Your task to perform on an android device: toggle show notifications on the lock screen Image 0: 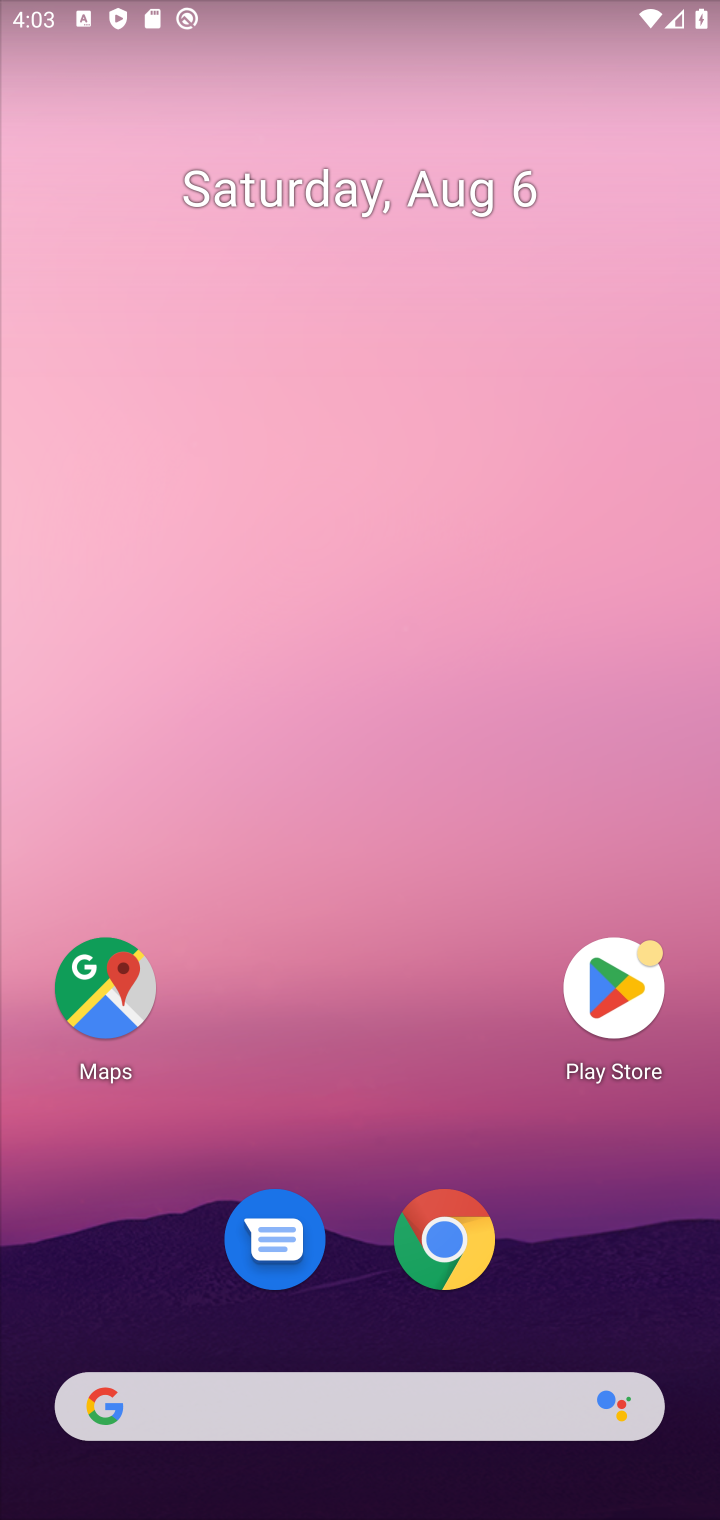
Step 0: press home button
Your task to perform on an android device: toggle show notifications on the lock screen Image 1: 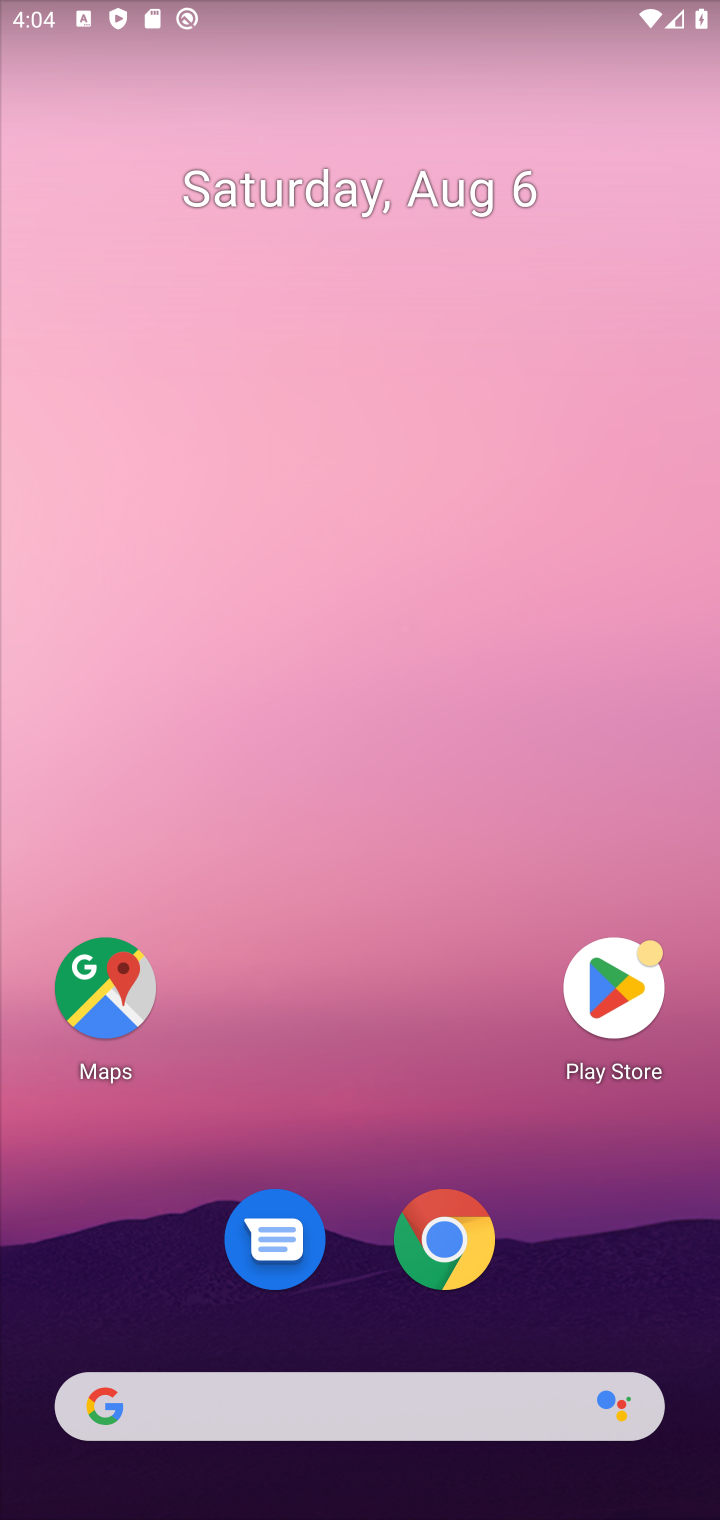
Step 1: drag from (503, 1410) to (563, 1)
Your task to perform on an android device: toggle show notifications on the lock screen Image 2: 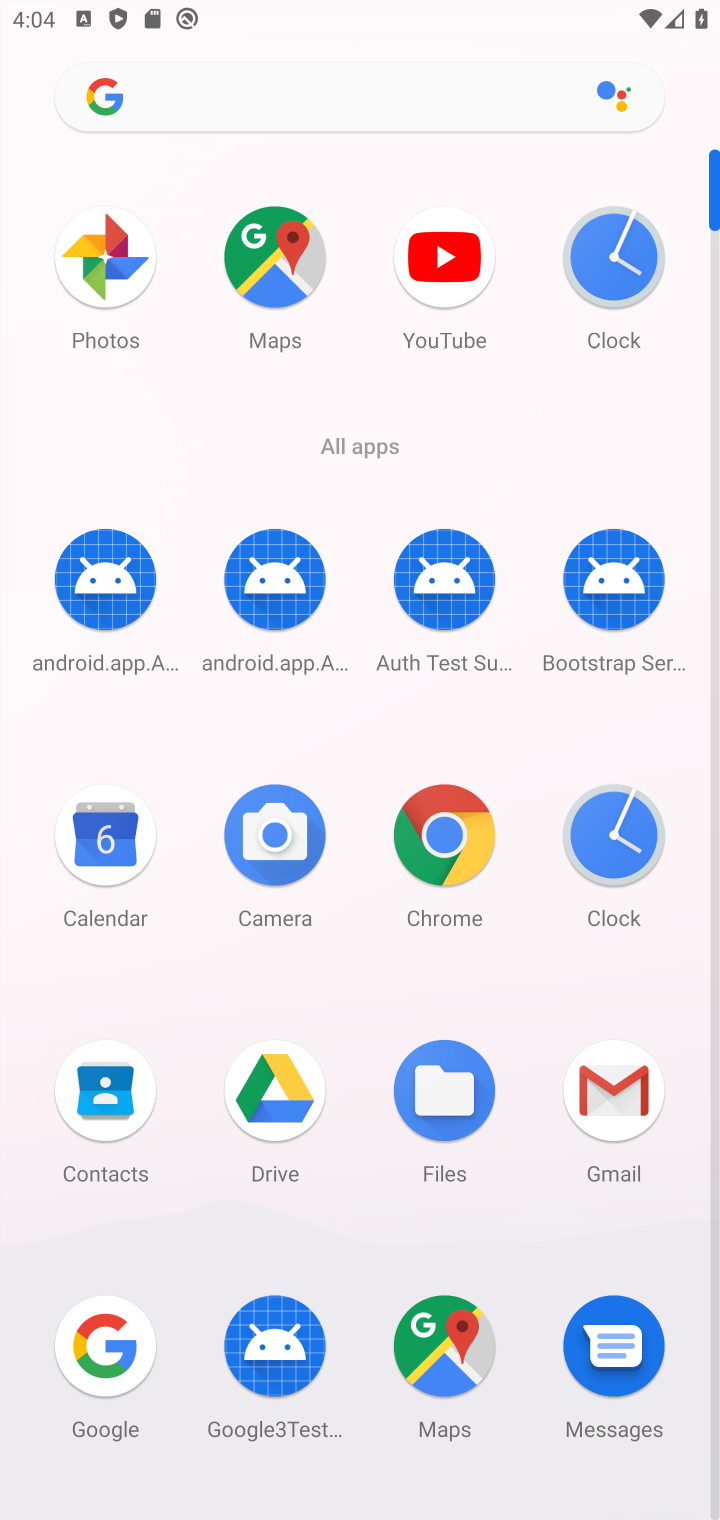
Step 2: click (582, 1193)
Your task to perform on an android device: toggle show notifications on the lock screen Image 3: 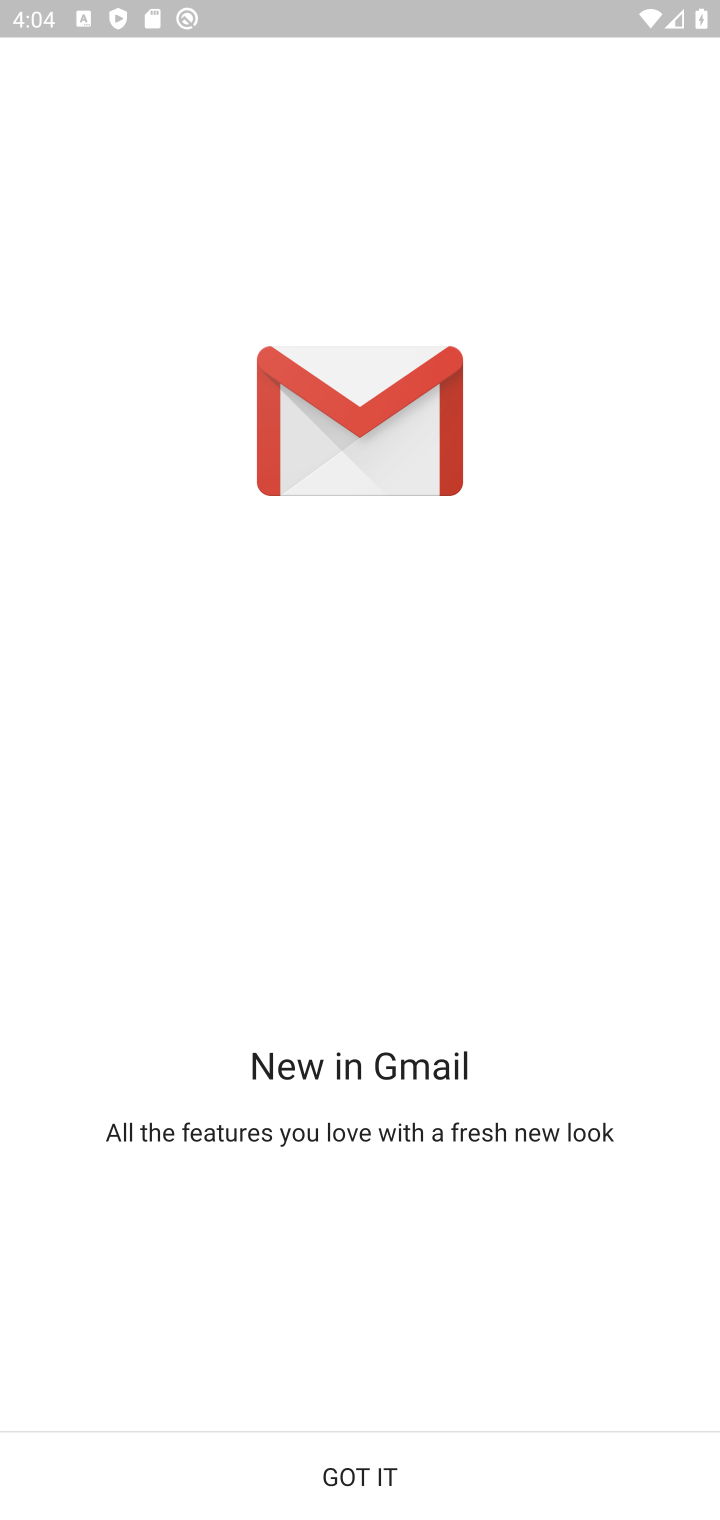
Step 3: press home button
Your task to perform on an android device: toggle show notifications on the lock screen Image 4: 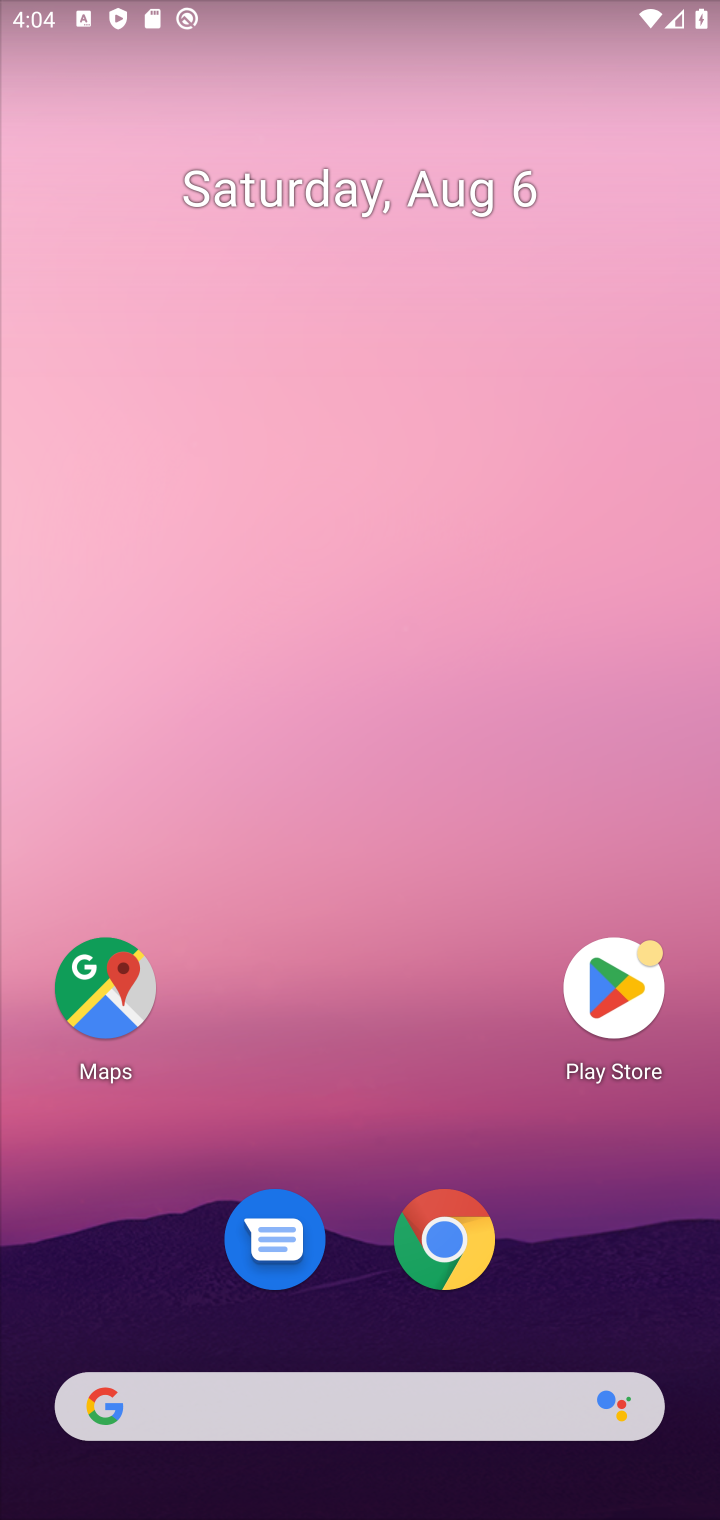
Step 4: drag from (355, 1405) to (376, 320)
Your task to perform on an android device: toggle show notifications on the lock screen Image 5: 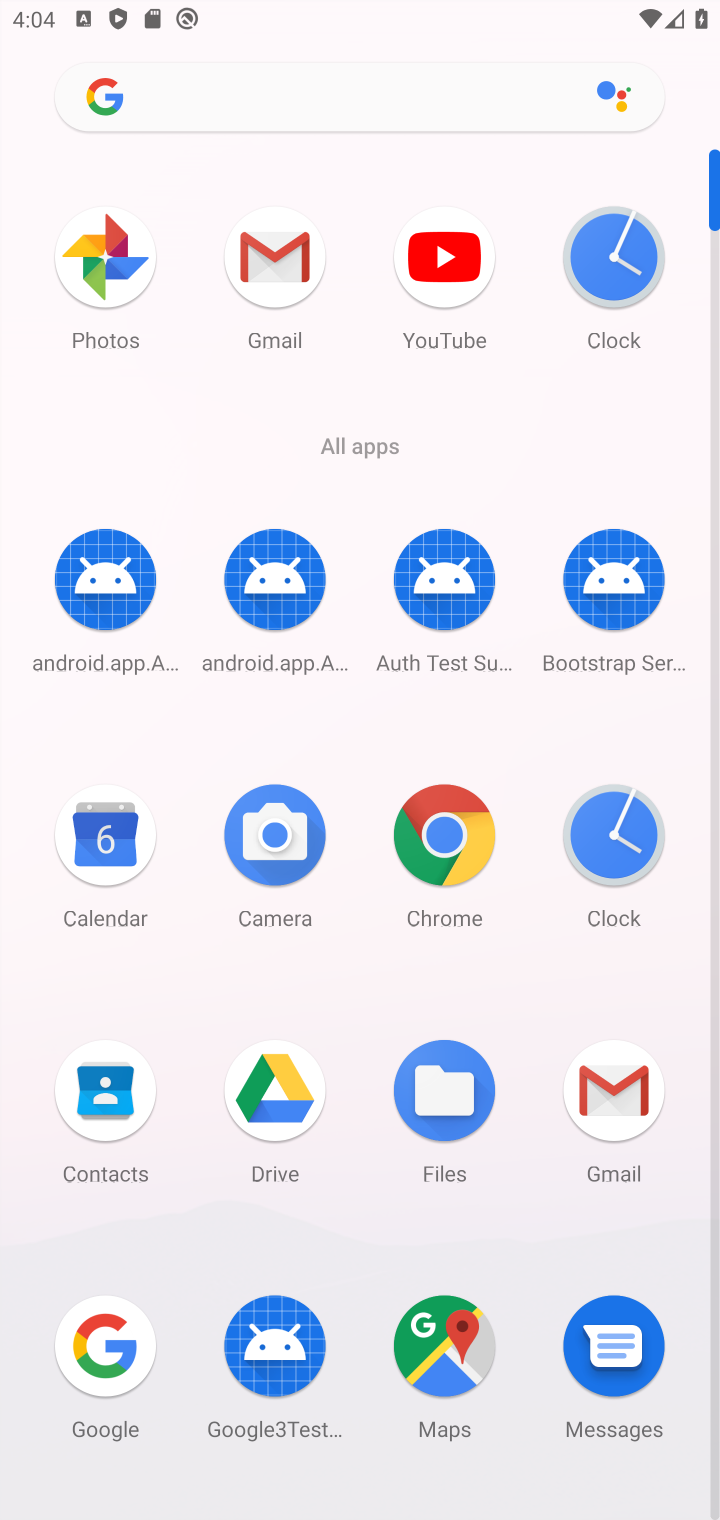
Step 5: drag from (350, 1234) to (325, 658)
Your task to perform on an android device: toggle show notifications on the lock screen Image 6: 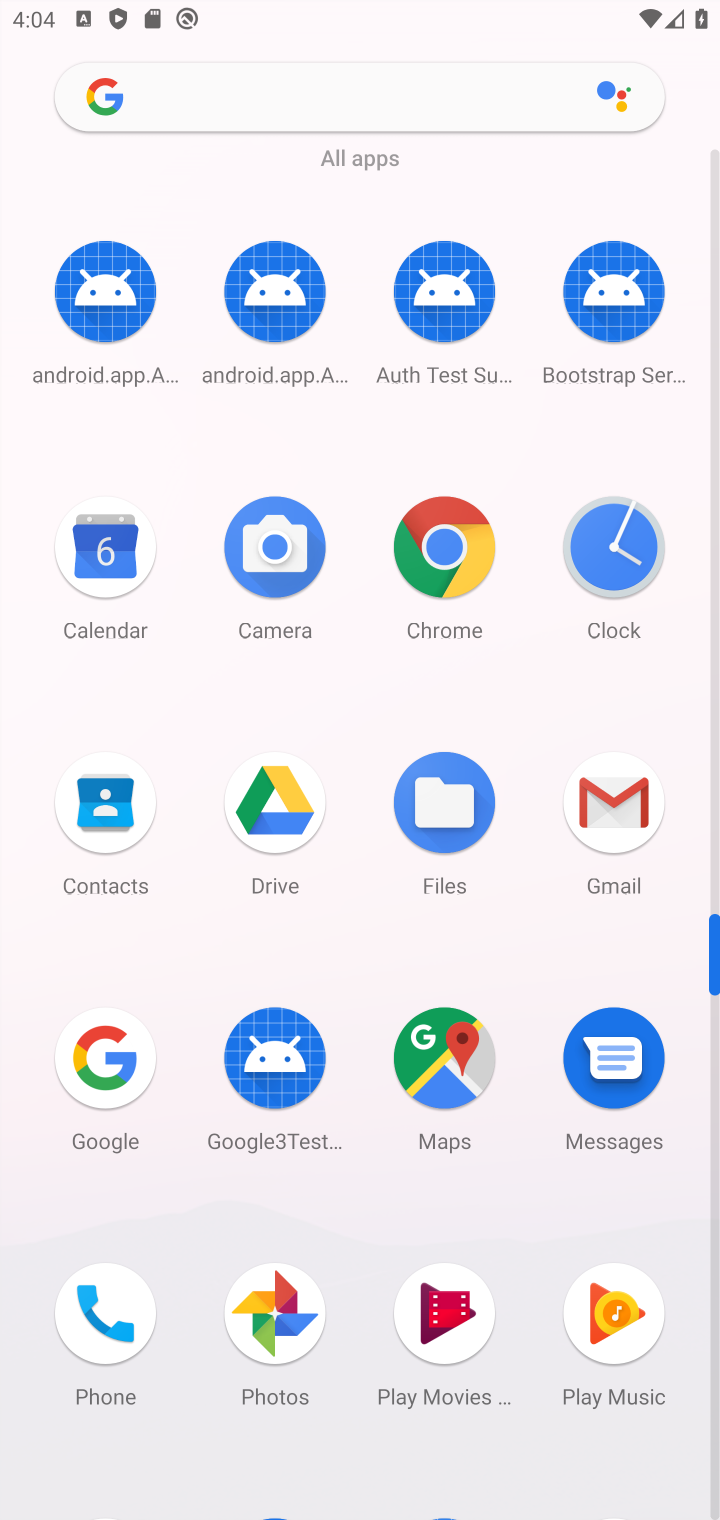
Step 6: drag from (349, 1400) to (363, 747)
Your task to perform on an android device: toggle show notifications on the lock screen Image 7: 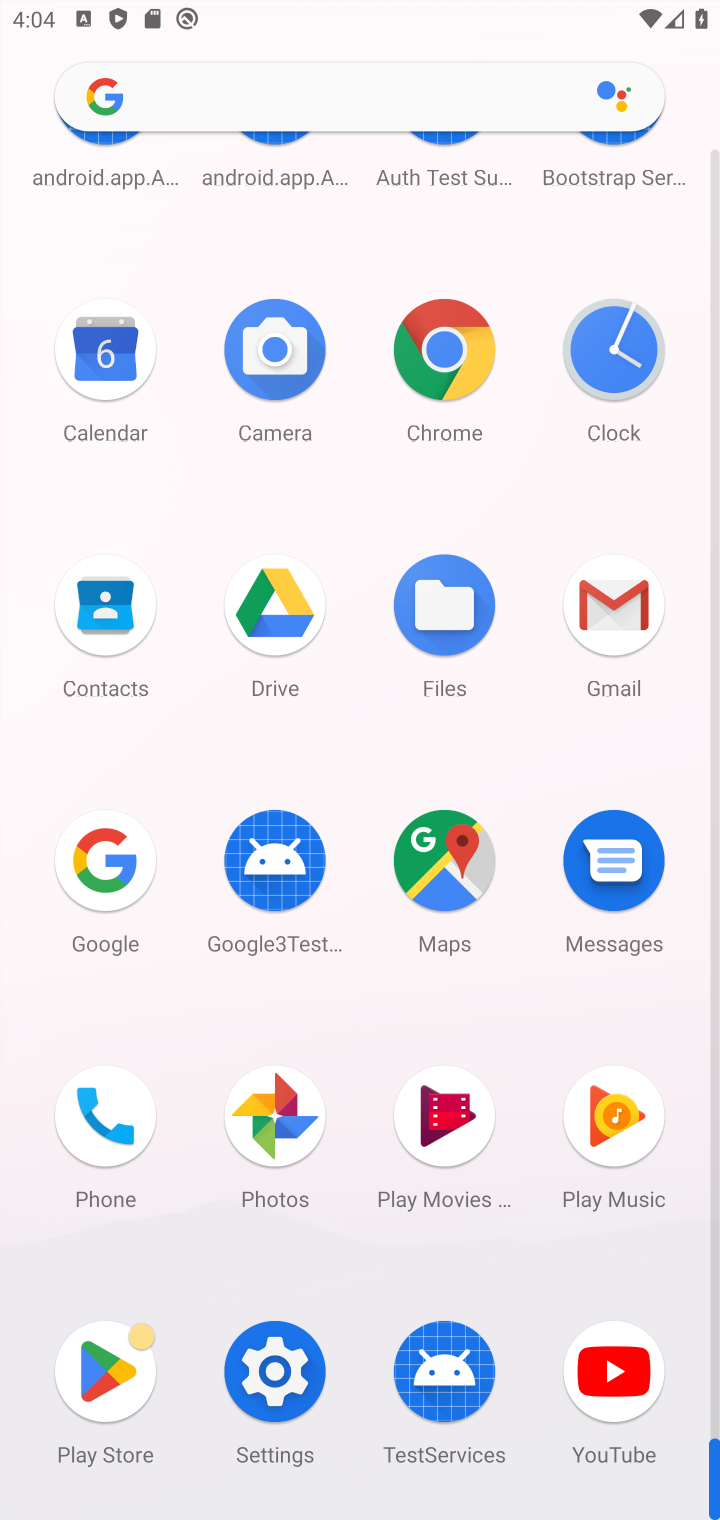
Step 7: click (254, 1364)
Your task to perform on an android device: toggle show notifications on the lock screen Image 8: 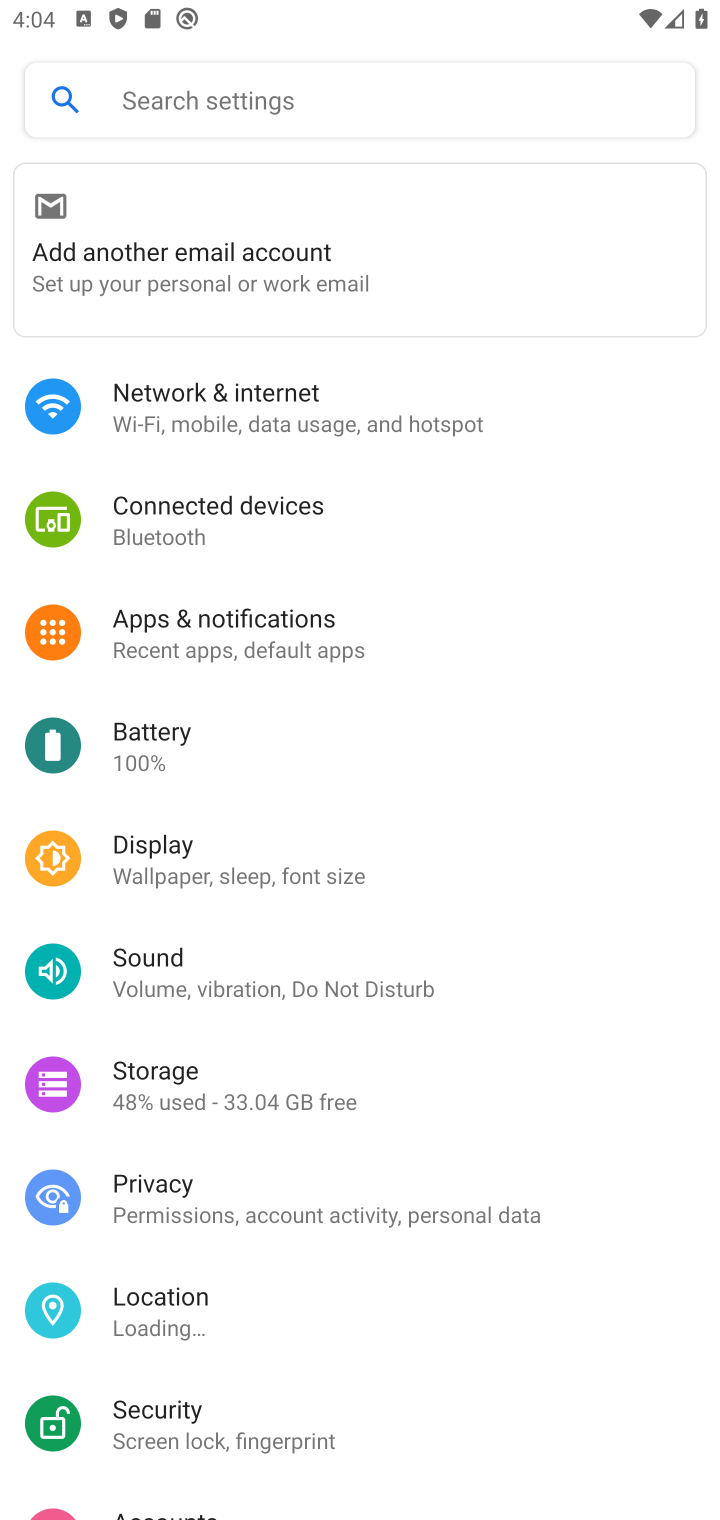
Step 8: click (238, 629)
Your task to perform on an android device: toggle show notifications on the lock screen Image 9: 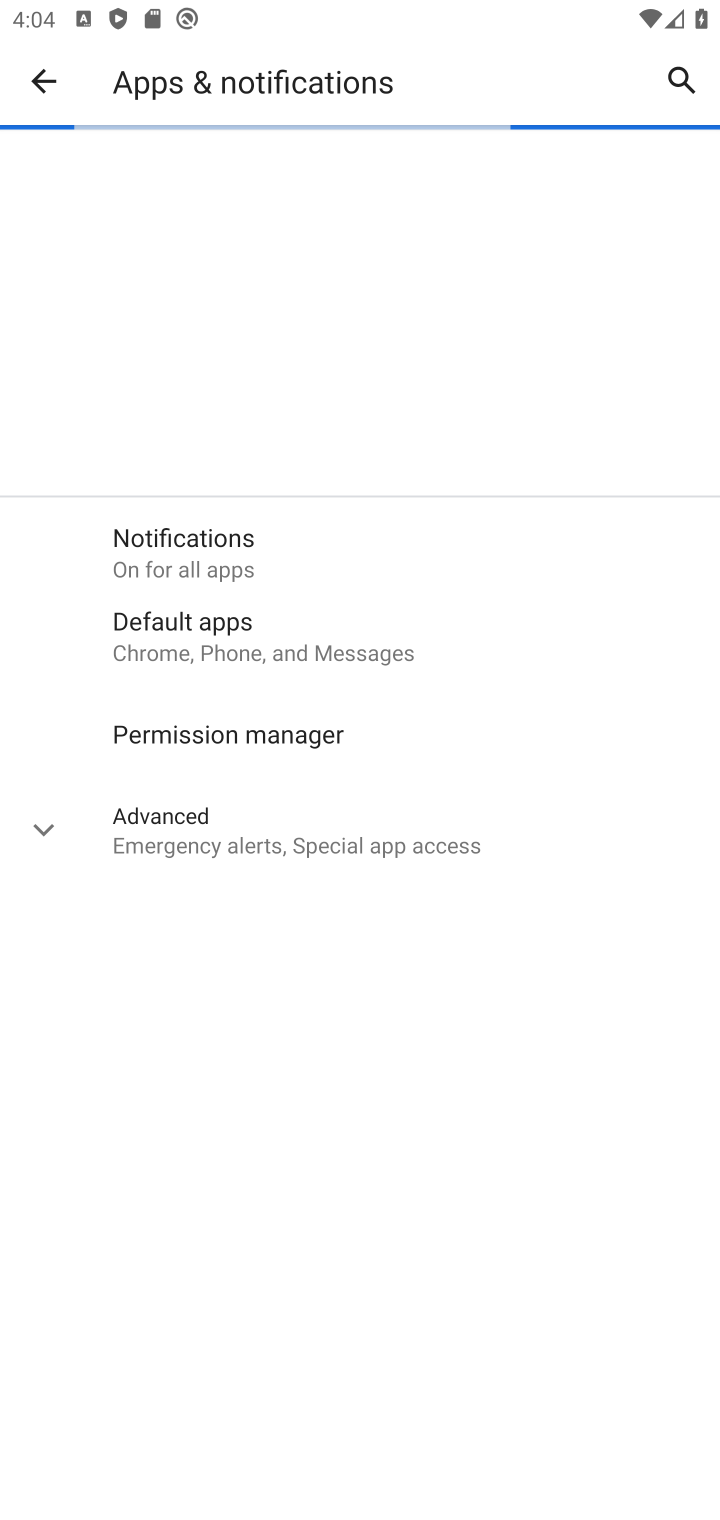
Step 9: click (220, 829)
Your task to perform on an android device: toggle show notifications on the lock screen Image 10: 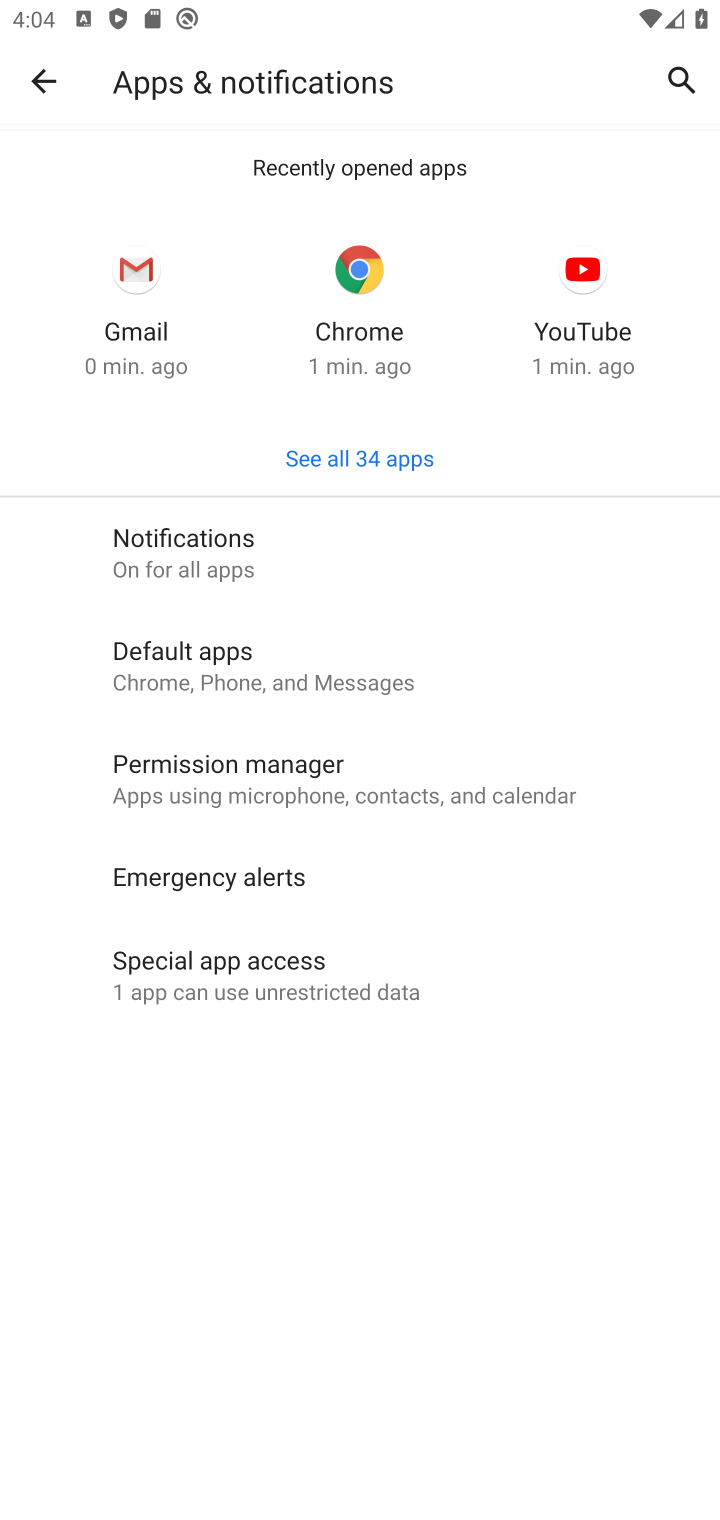
Step 10: click (241, 544)
Your task to perform on an android device: toggle show notifications on the lock screen Image 11: 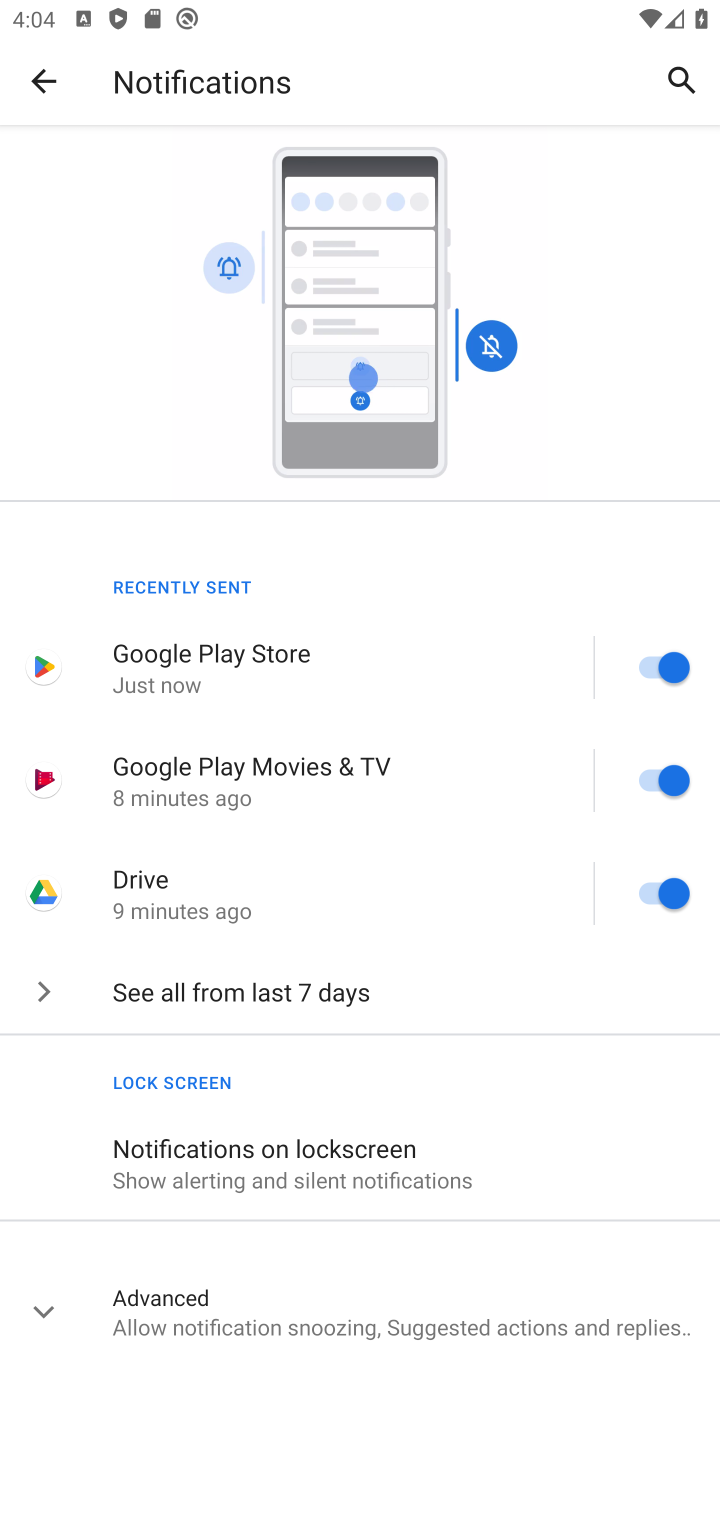
Step 11: click (184, 1311)
Your task to perform on an android device: toggle show notifications on the lock screen Image 12: 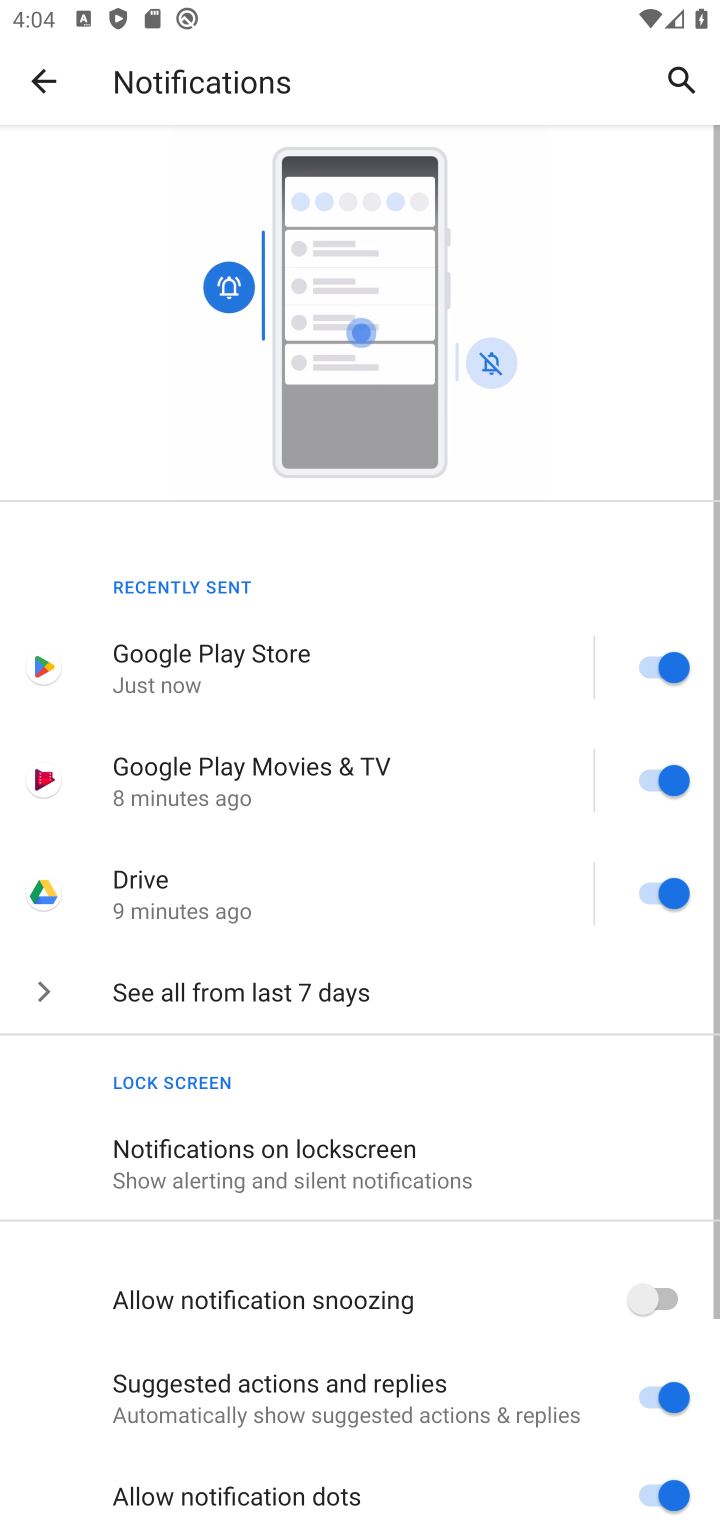
Step 12: drag from (509, 1448) to (563, 800)
Your task to perform on an android device: toggle show notifications on the lock screen Image 13: 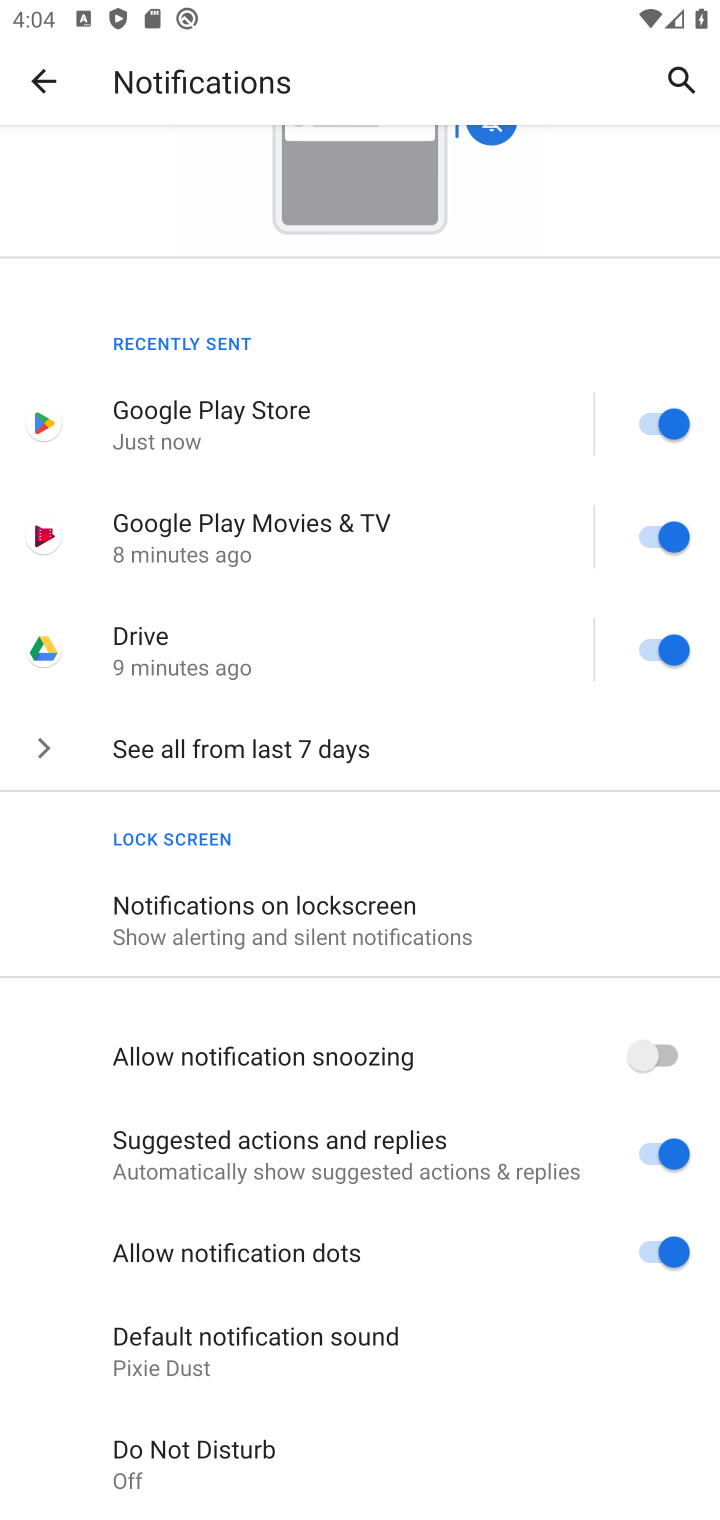
Step 13: click (363, 902)
Your task to perform on an android device: toggle show notifications on the lock screen Image 14: 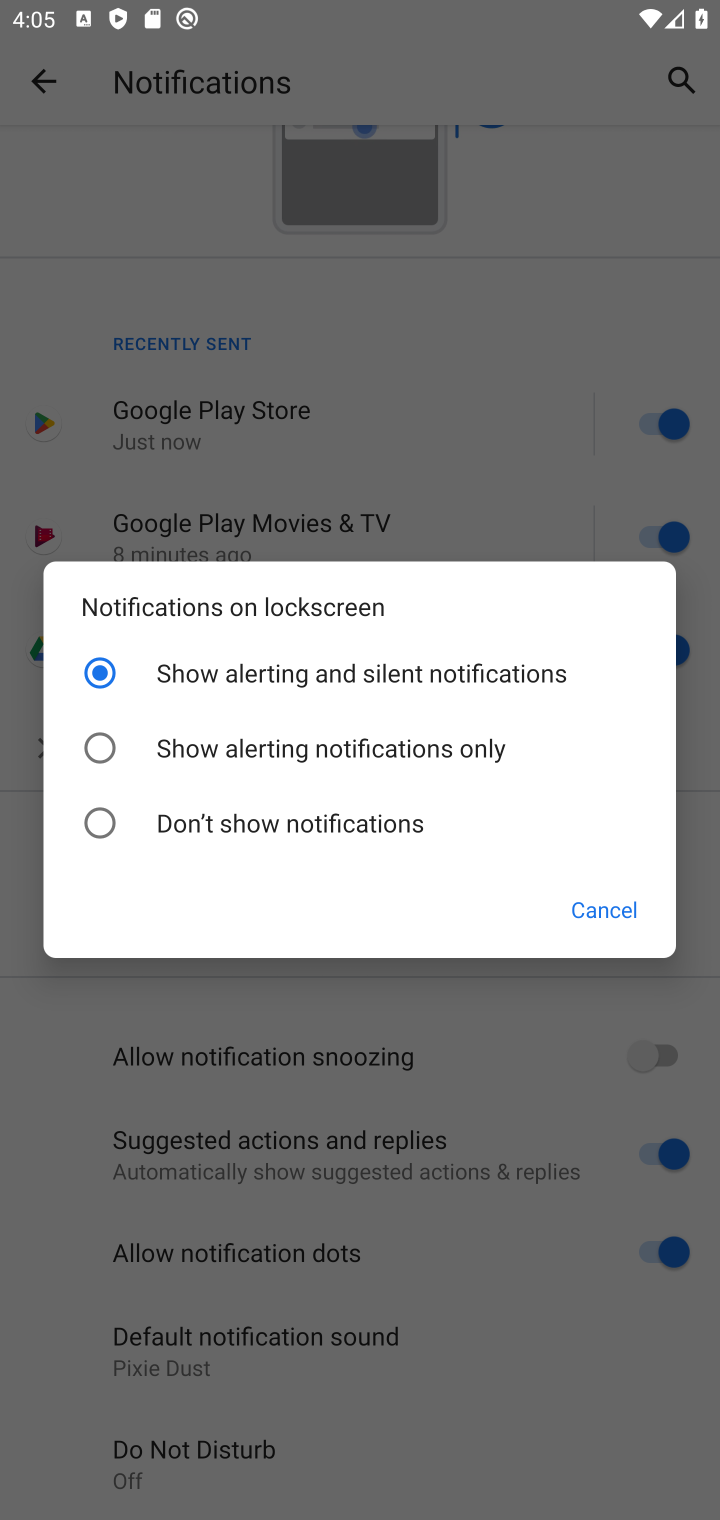
Step 14: click (99, 820)
Your task to perform on an android device: toggle show notifications on the lock screen Image 15: 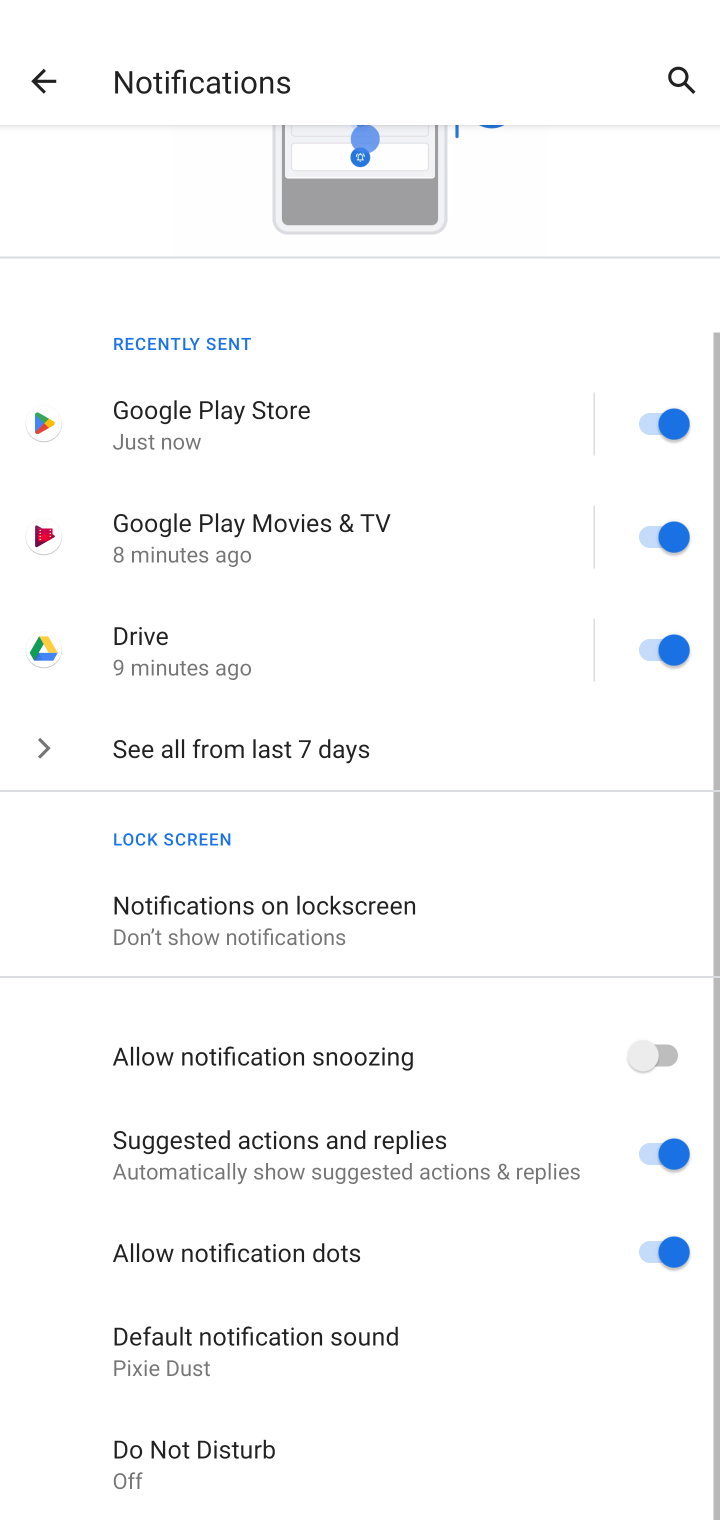
Step 15: task complete